Your task to perform on an android device: change the clock display to digital Image 0: 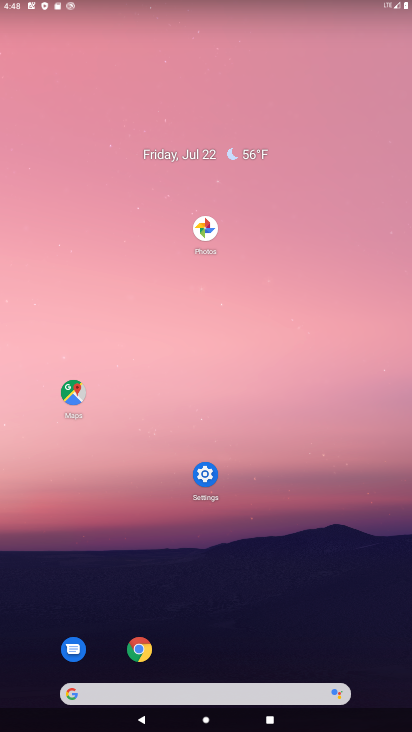
Step 0: drag from (256, 376) to (230, 198)
Your task to perform on an android device: change the clock display to digital Image 1: 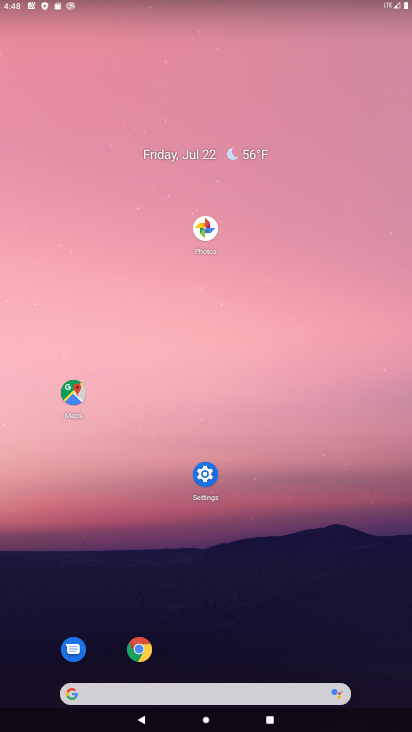
Step 1: drag from (247, 290) to (247, 243)
Your task to perform on an android device: change the clock display to digital Image 2: 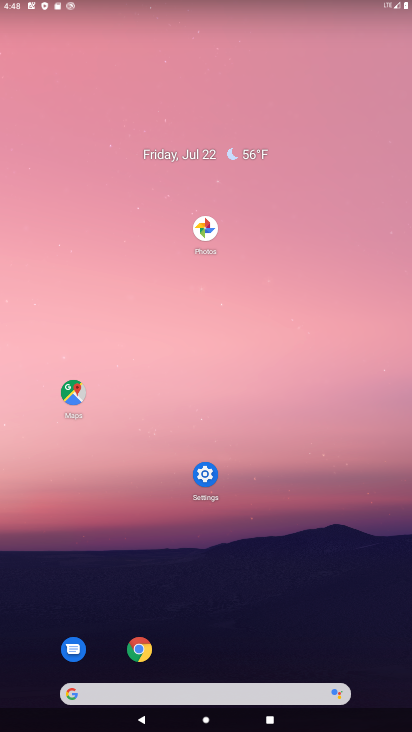
Step 2: drag from (223, 261) to (220, 103)
Your task to perform on an android device: change the clock display to digital Image 3: 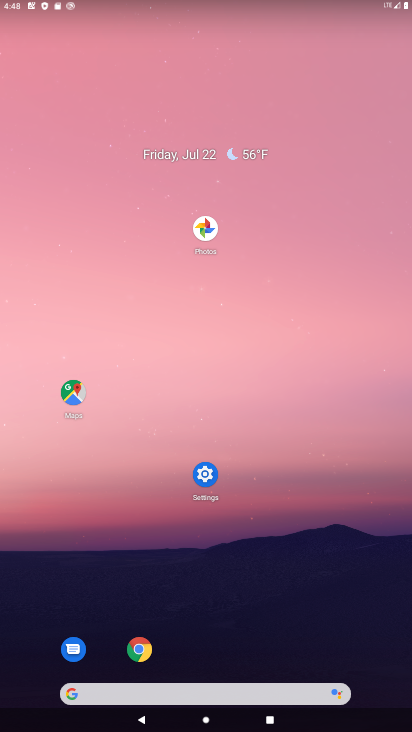
Step 3: drag from (288, 537) to (234, 133)
Your task to perform on an android device: change the clock display to digital Image 4: 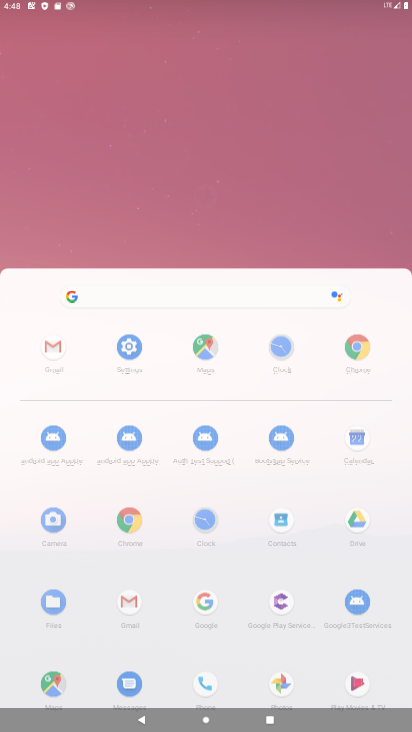
Step 4: drag from (215, 426) to (172, 45)
Your task to perform on an android device: change the clock display to digital Image 5: 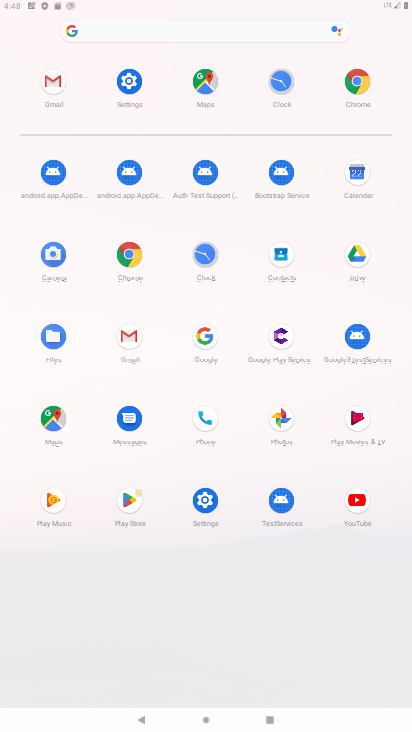
Step 5: drag from (202, 295) to (198, 5)
Your task to perform on an android device: change the clock display to digital Image 6: 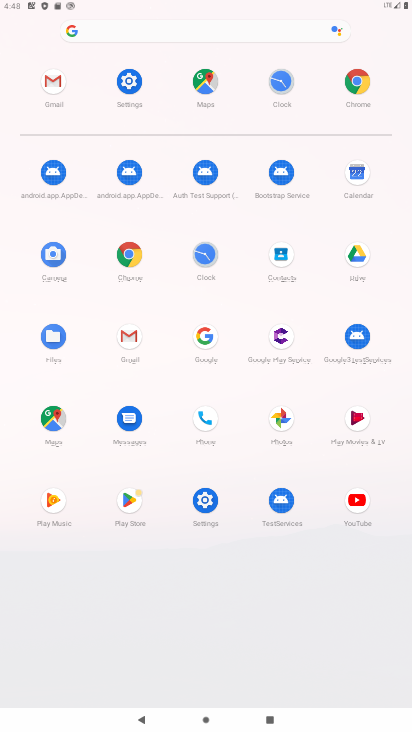
Step 6: drag from (211, 332) to (211, 65)
Your task to perform on an android device: change the clock display to digital Image 7: 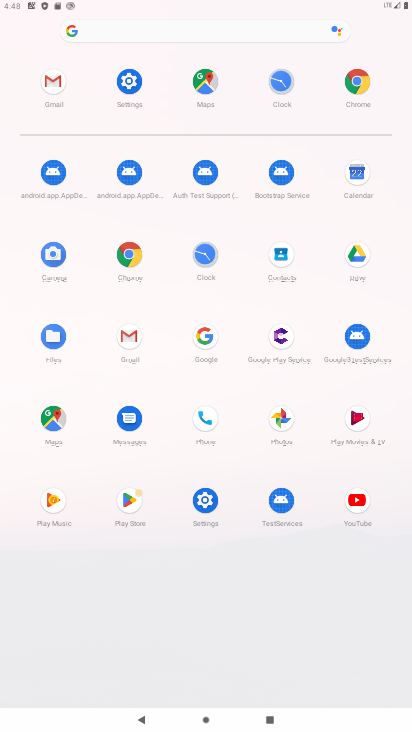
Step 7: click (208, 239)
Your task to perform on an android device: change the clock display to digital Image 8: 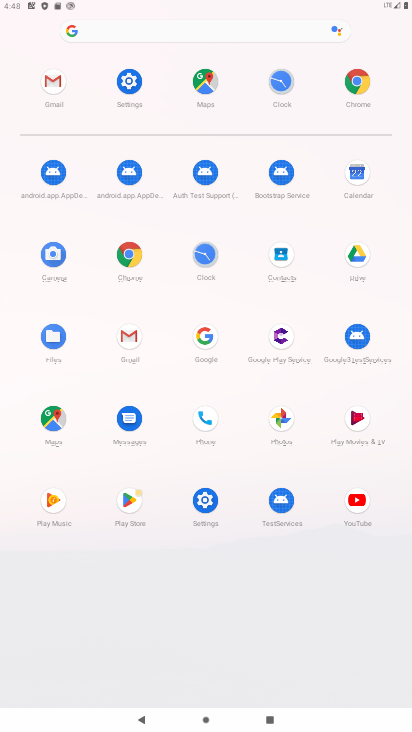
Step 8: click (205, 249)
Your task to perform on an android device: change the clock display to digital Image 9: 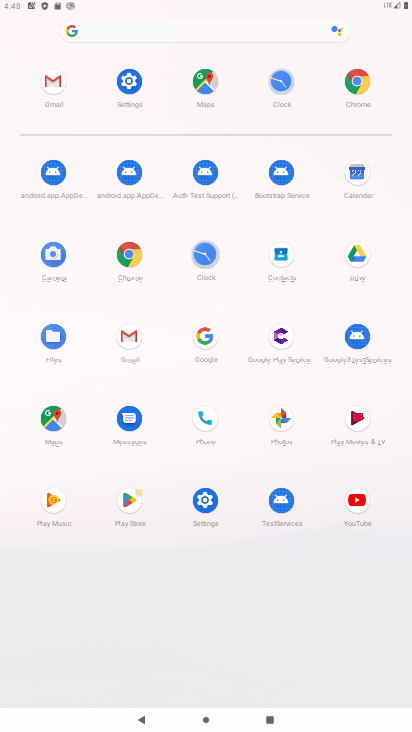
Step 9: click (205, 249)
Your task to perform on an android device: change the clock display to digital Image 10: 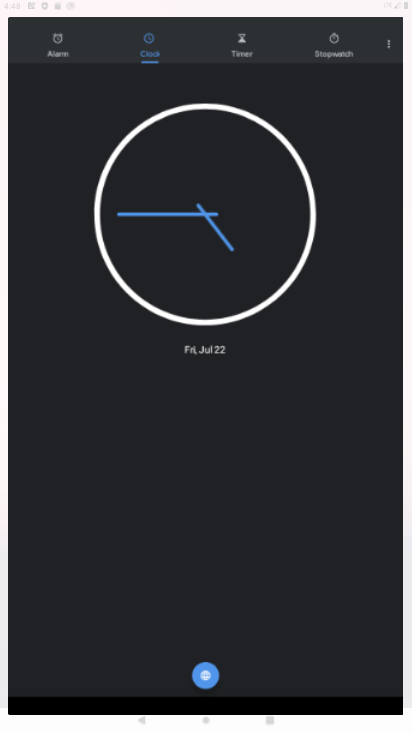
Step 10: click (205, 249)
Your task to perform on an android device: change the clock display to digital Image 11: 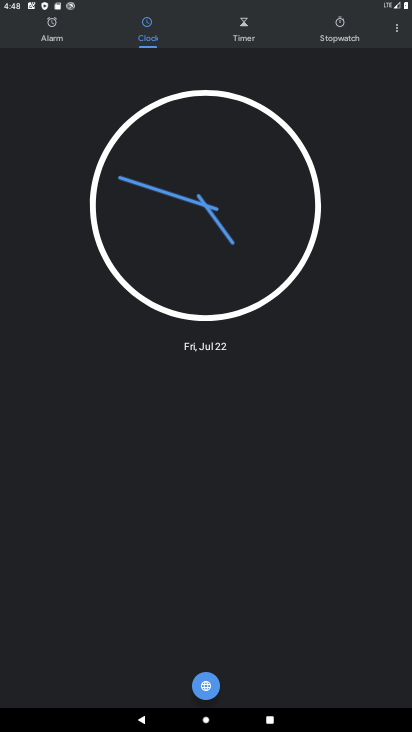
Step 11: click (205, 249)
Your task to perform on an android device: change the clock display to digital Image 12: 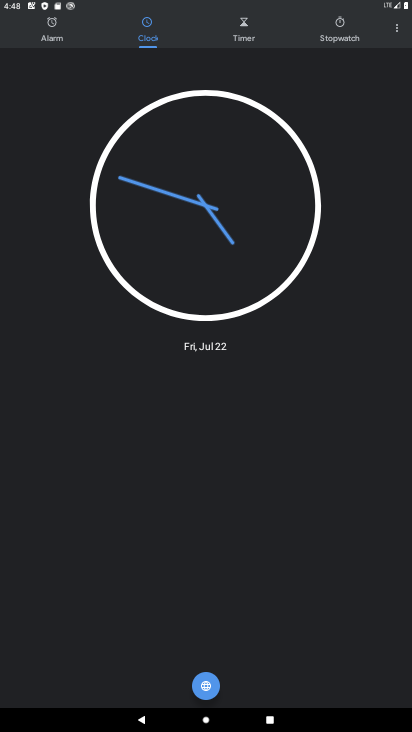
Step 12: click (384, 27)
Your task to perform on an android device: change the clock display to digital Image 13: 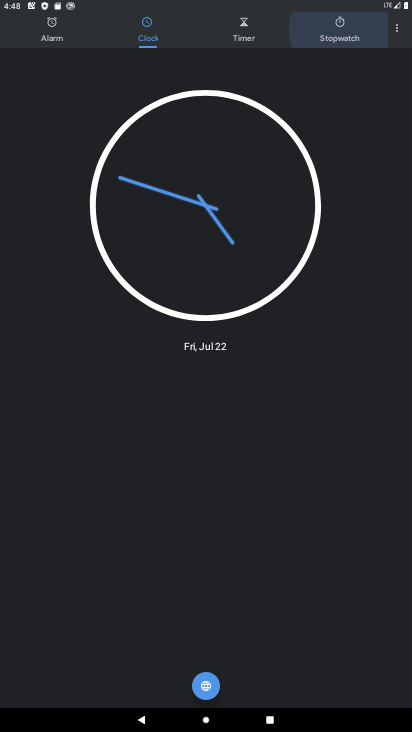
Step 13: click (386, 27)
Your task to perform on an android device: change the clock display to digital Image 14: 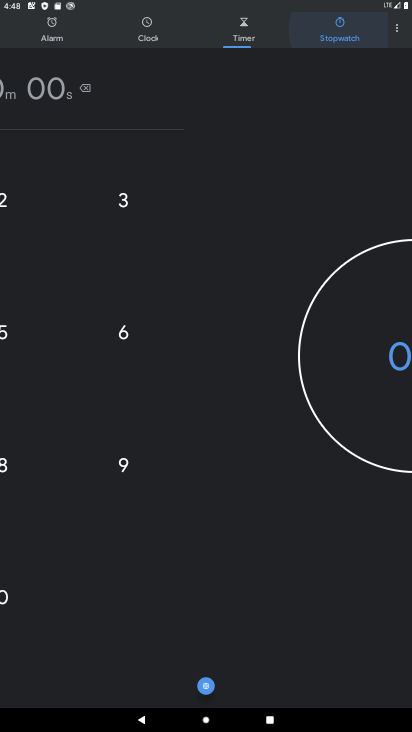
Step 14: click (386, 27)
Your task to perform on an android device: change the clock display to digital Image 15: 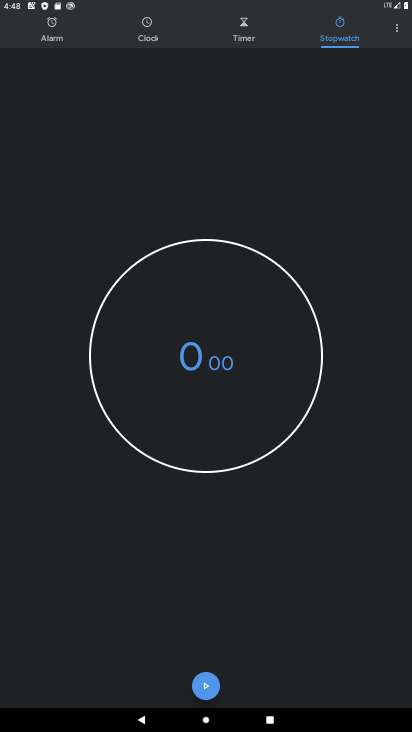
Step 15: click (392, 34)
Your task to perform on an android device: change the clock display to digital Image 16: 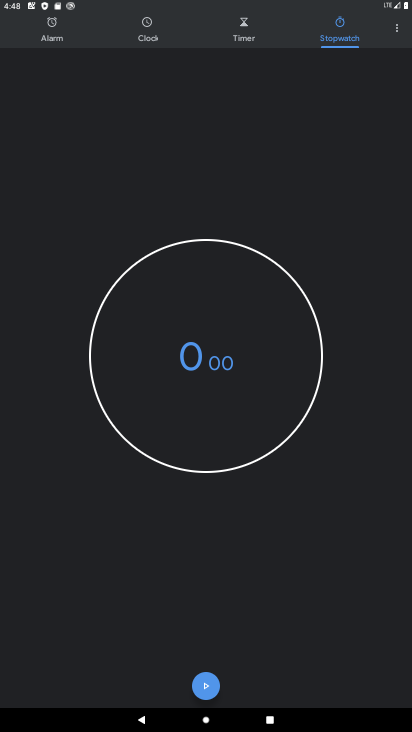
Step 16: click (393, 33)
Your task to perform on an android device: change the clock display to digital Image 17: 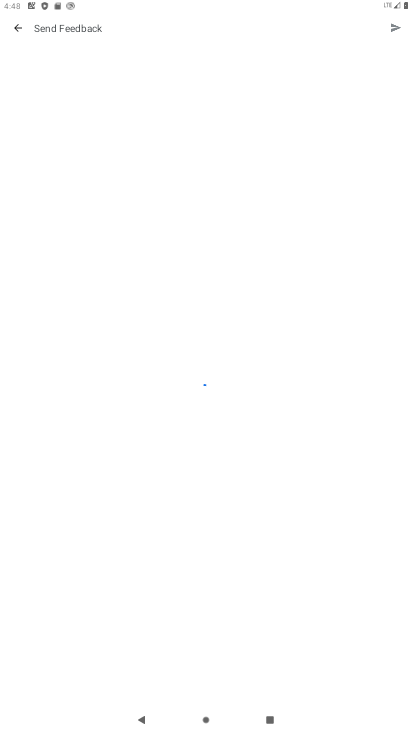
Step 17: click (400, 28)
Your task to perform on an android device: change the clock display to digital Image 18: 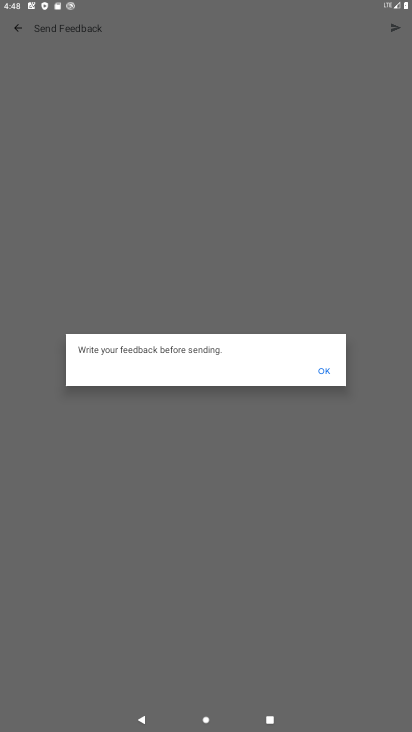
Step 18: click (17, 22)
Your task to perform on an android device: change the clock display to digital Image 19: 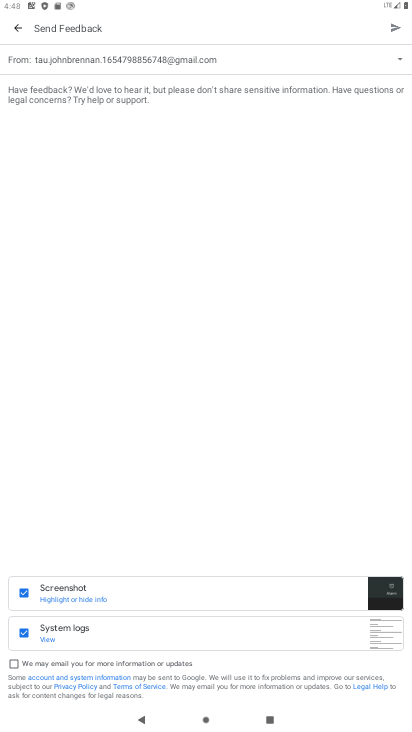
Step 19: click (12, 22)
Your task to perform on an android device: change the clock display to digital Image 20: 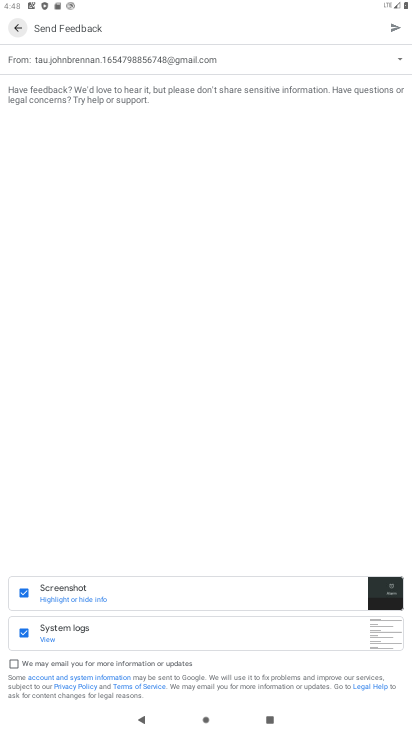
Step 20: click (12, 22)
Your task to perform on an android device: change the clock display to digital Image 21: 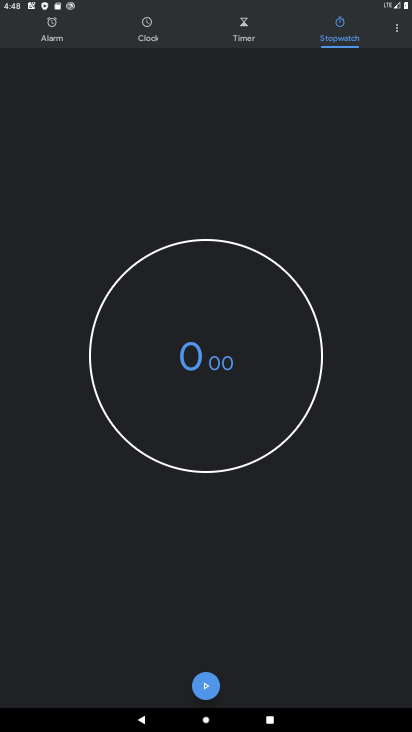
Step 21: click (399, 26)
Your task to perform on an android device: change the clock display to digital Image 22: 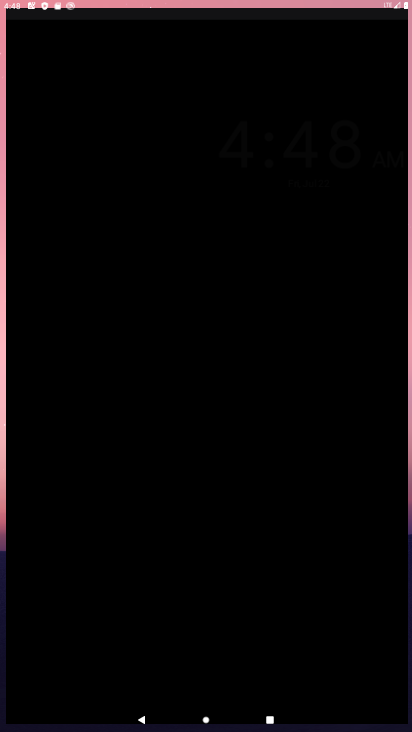
Step 22: click (348, 57)
Your task to perform on an android device: change the clock display to digital Image 23: 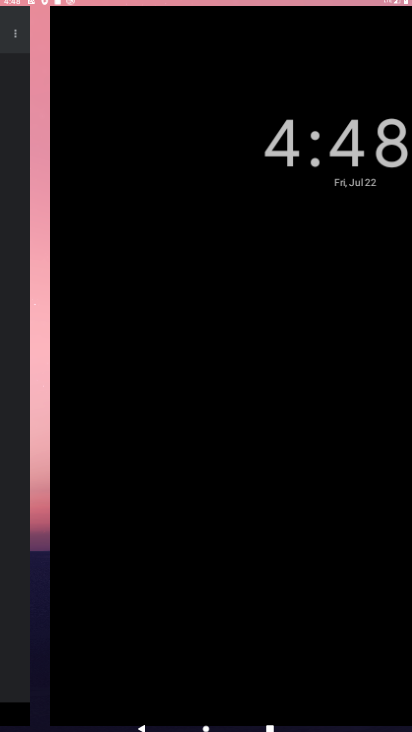
Step 23: click (347, 56)
Your task to perform on an android device: change the clock display to digital Image 24: 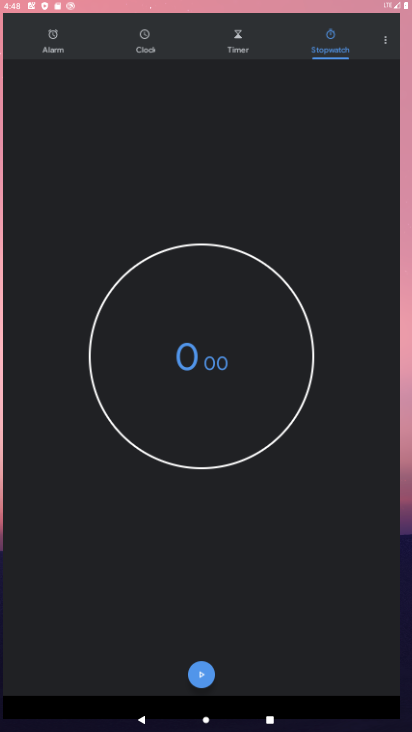
Step 24: click (347, 56)
Your task to perform on an android device: change the clock display to digital Image 25: 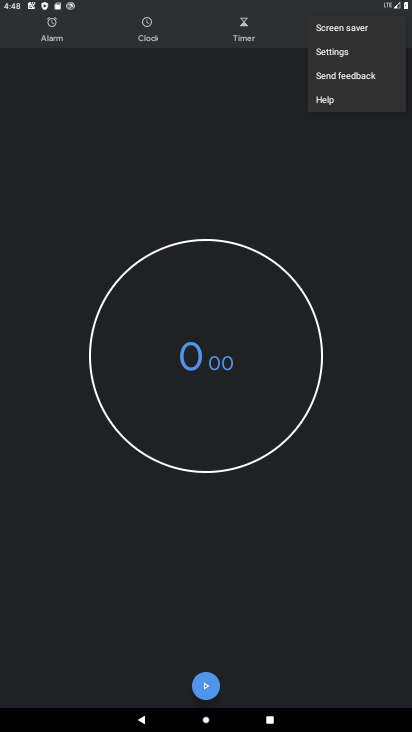
Step 25: click (351, 45)
Your task to perform on an android device: change the clock display to digital Image 26: 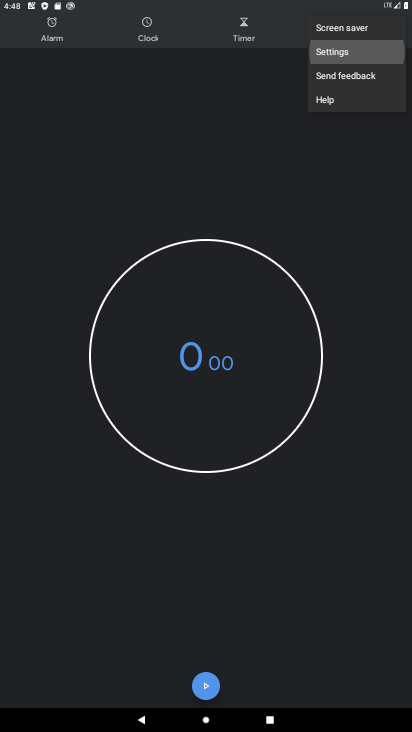
Step 26: click (347, 47)
Your task to perform on an android device: change the clock display to digital Image 27: 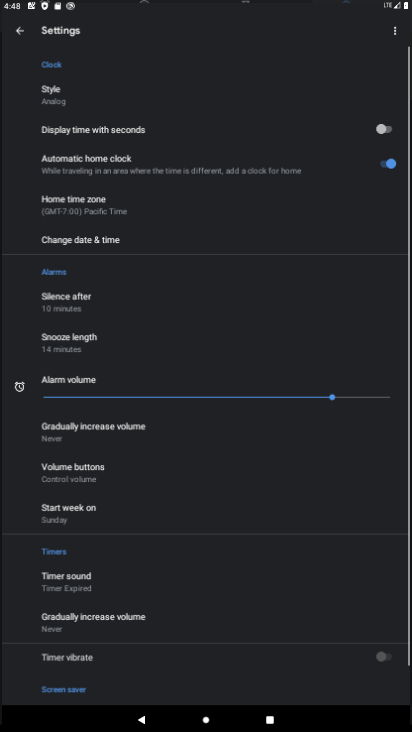
Step 27: click (347, 47)
Your task to perform on an android device: change the clock display to digital Image 28: 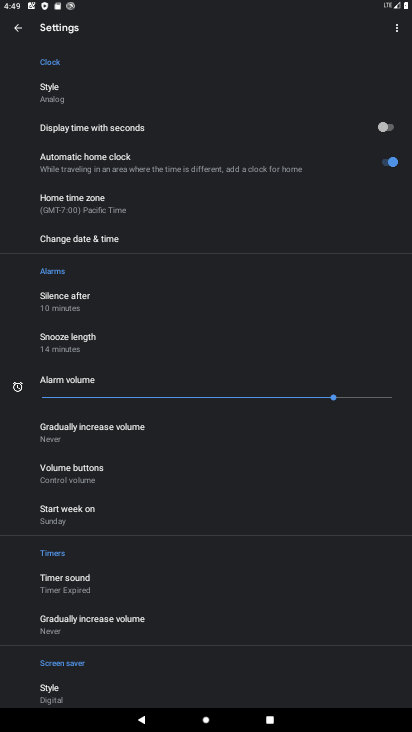
Step 28: click (45, 88)
Your task to perform on an android device: change the clock display to digital Image 29: 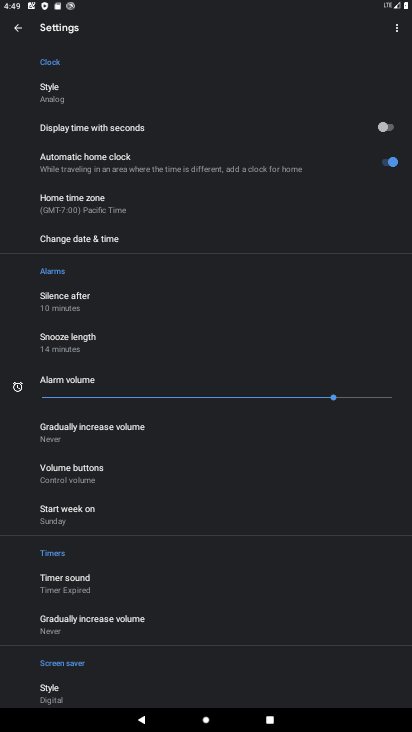
Step 29: click (47, 88)
Your task to perform on an android device: change the clock display to digital Image 30: 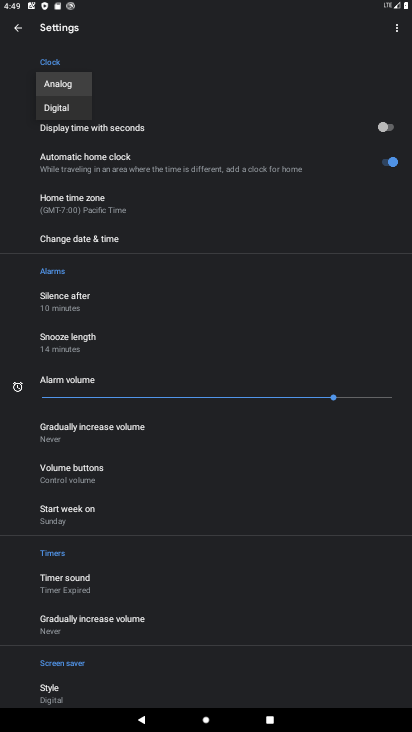
Step 30: click (50, 102)
Your task to perform on an android device: change the clock display to digital Image 31: 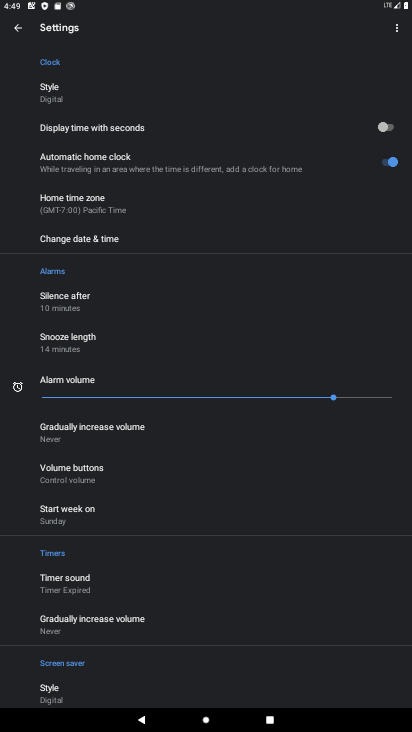
Step 31: task complete